Your task to perform on an android device: change notifications settings Image 0: 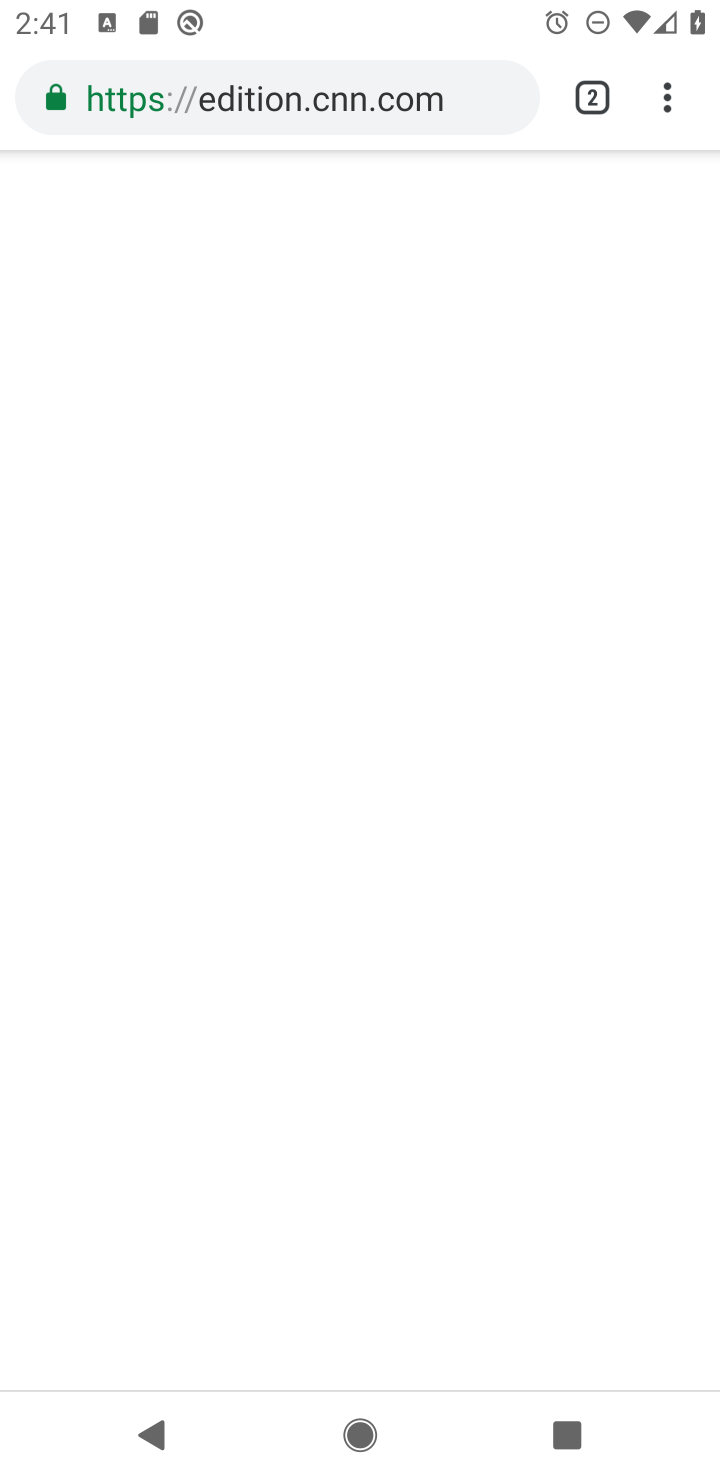
Step 0: press home button
Your task to perform on an android device: change notifications settings Image 1: 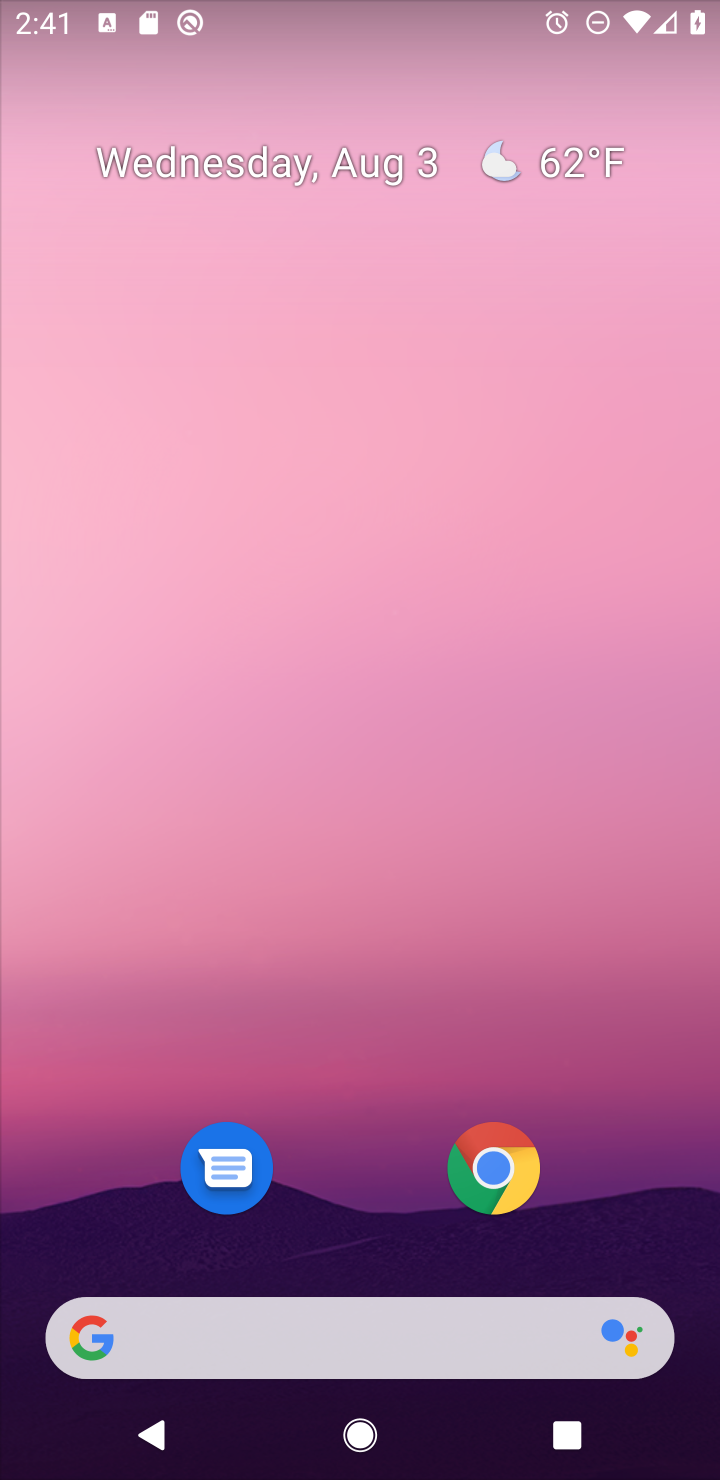
Step 1: drag from (647, 1147) to (620, 224)
Your task to perform on an android device: change notifications settings Image 2: 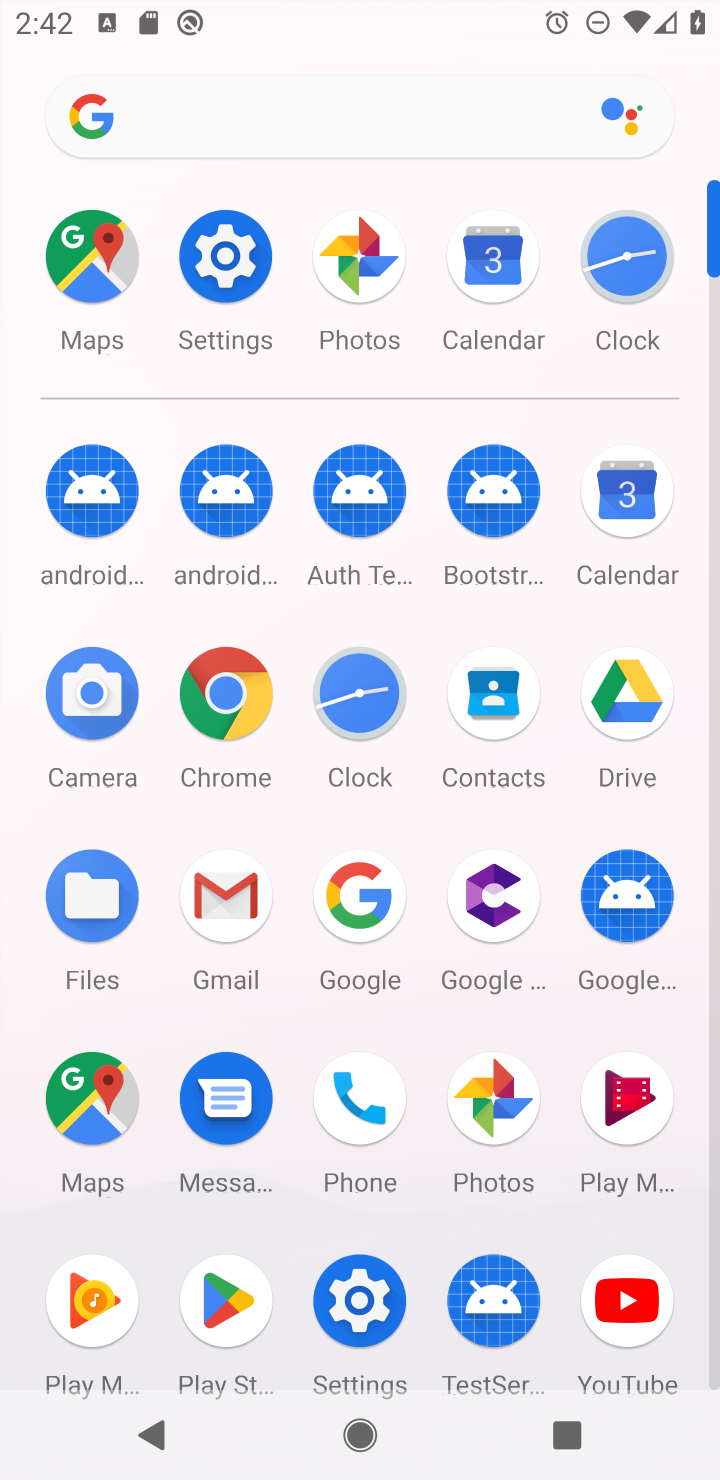
Step 2: click (360, 1301)
Your task to perform on an android device: change notifications settings Image 3: 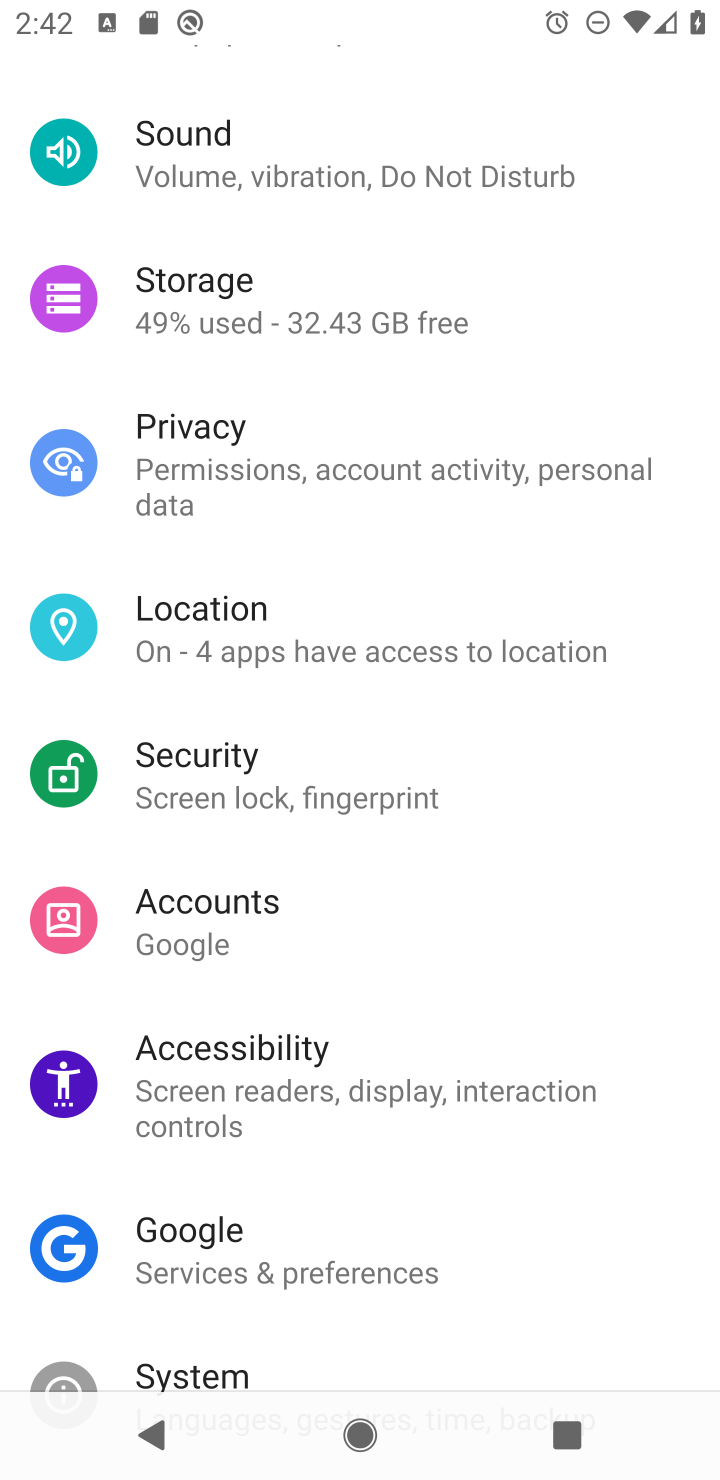
Step 3: drag from (639, 282) to (664, 1001)
Your task to perform on an android device: change notifications settings Image 4: 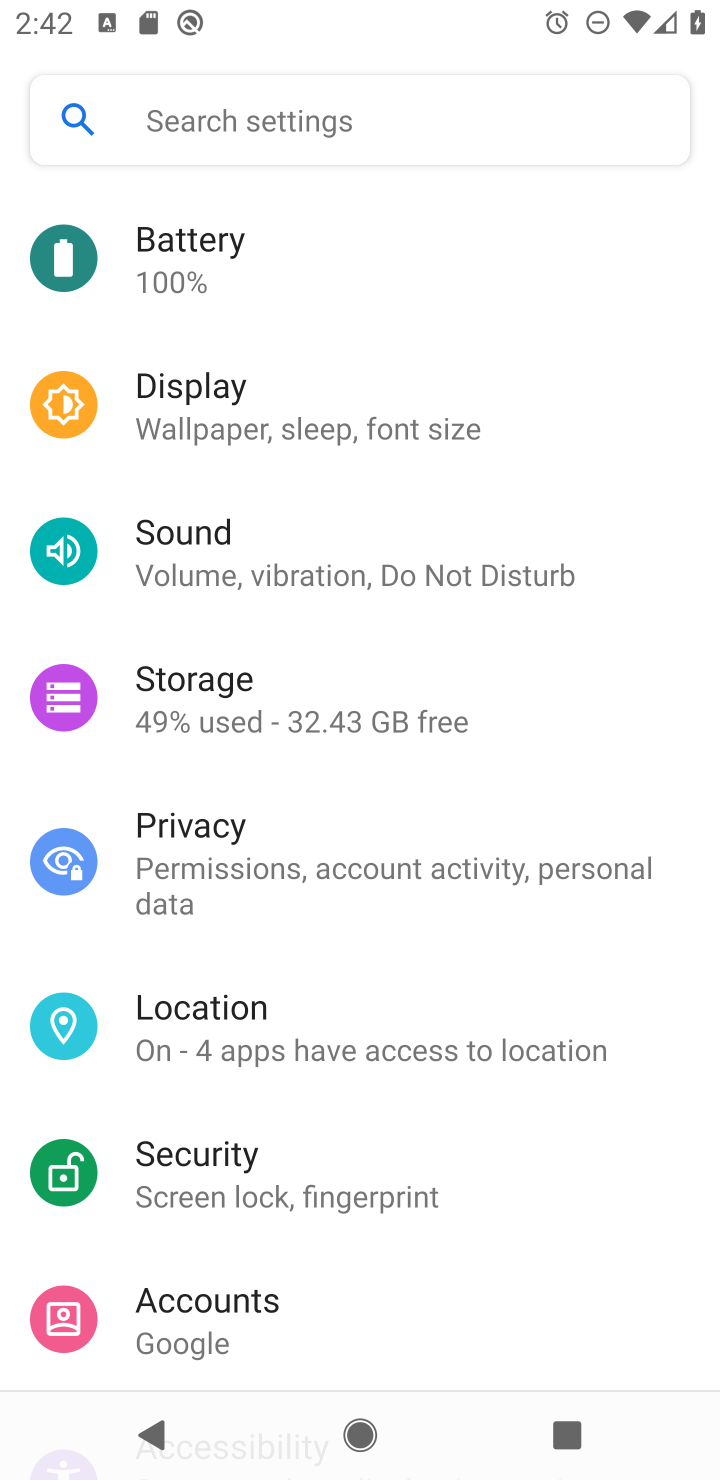
Step 4: drag from (617, 341) to (655, 933)
Your task to perform on an android device: change notifications settings Image 5: 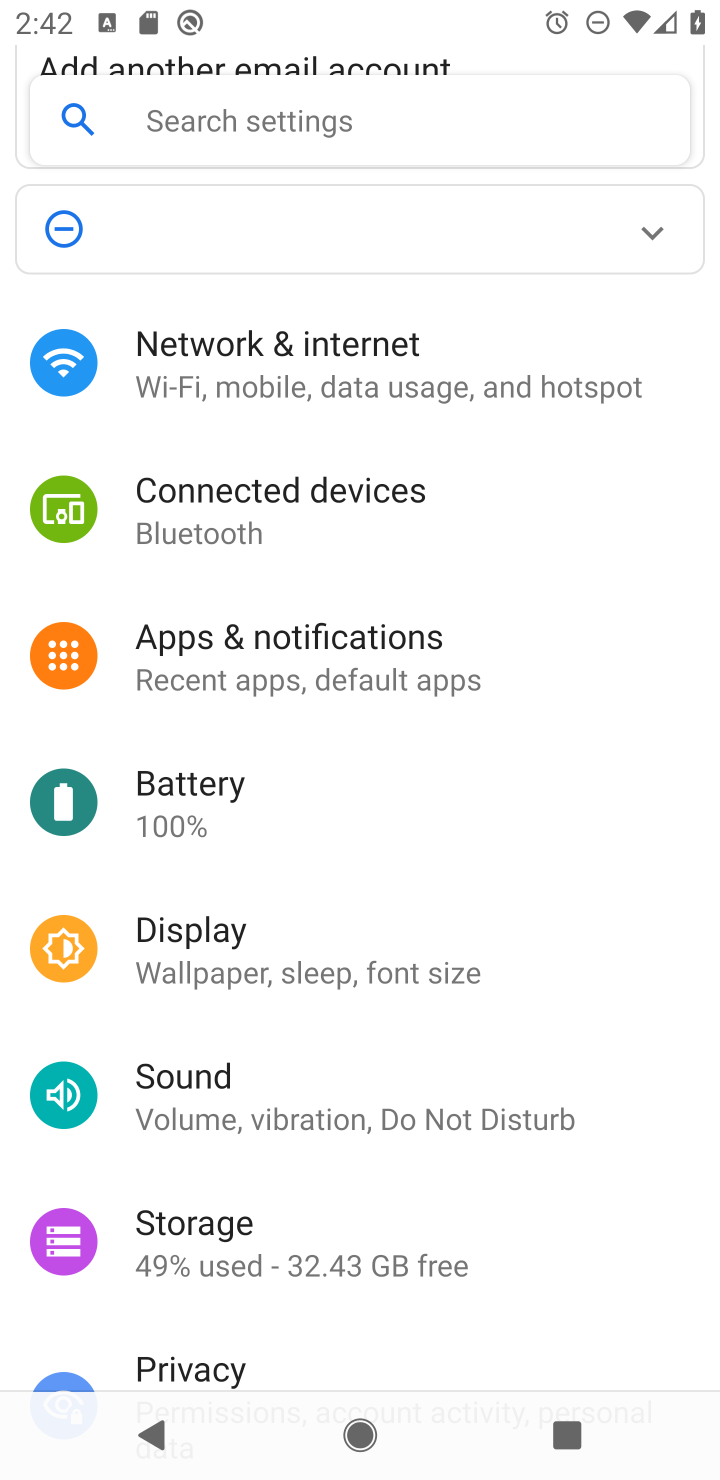
Step 5: click (294, 658)
Your task to perform on an android device: change notifications settings Image 6: 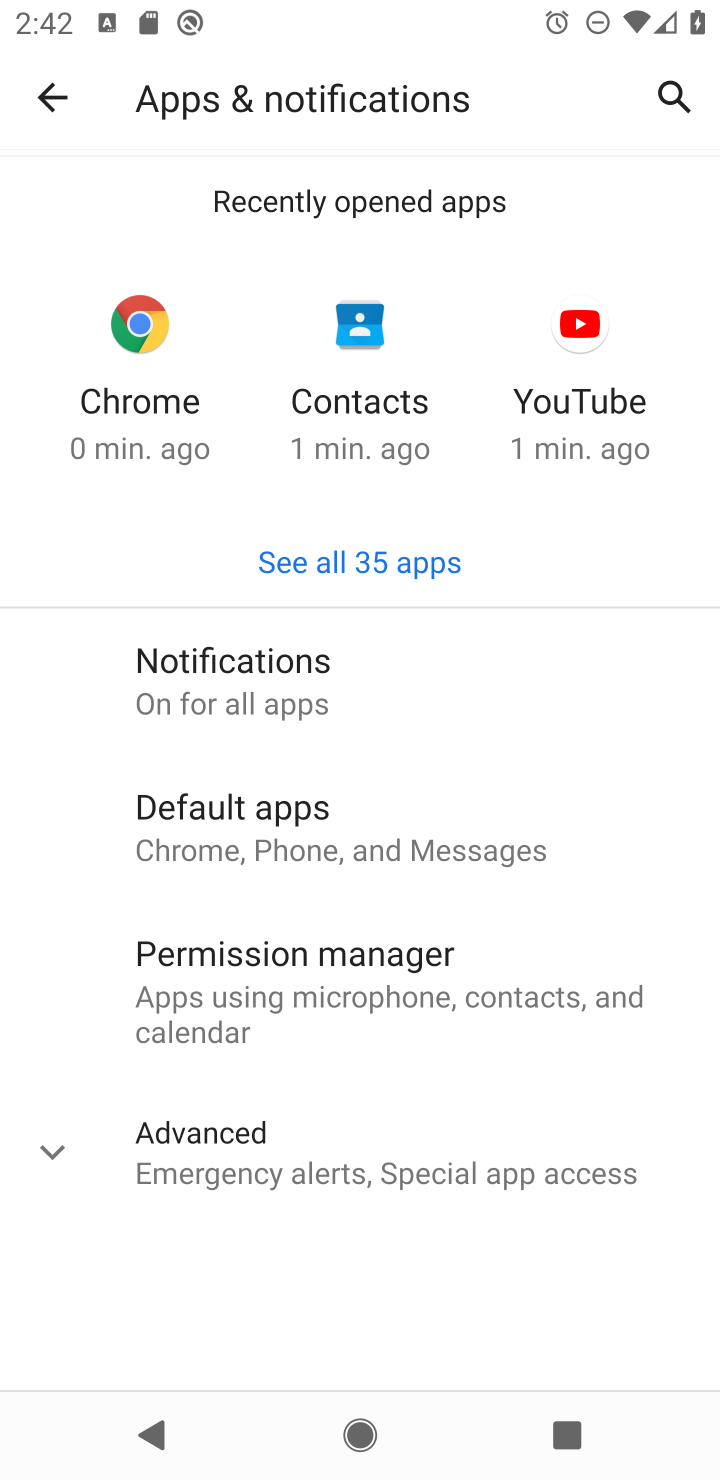
Step 6: click (248, 675)
Your task to perform on an android device: change notifications settings Image 7: 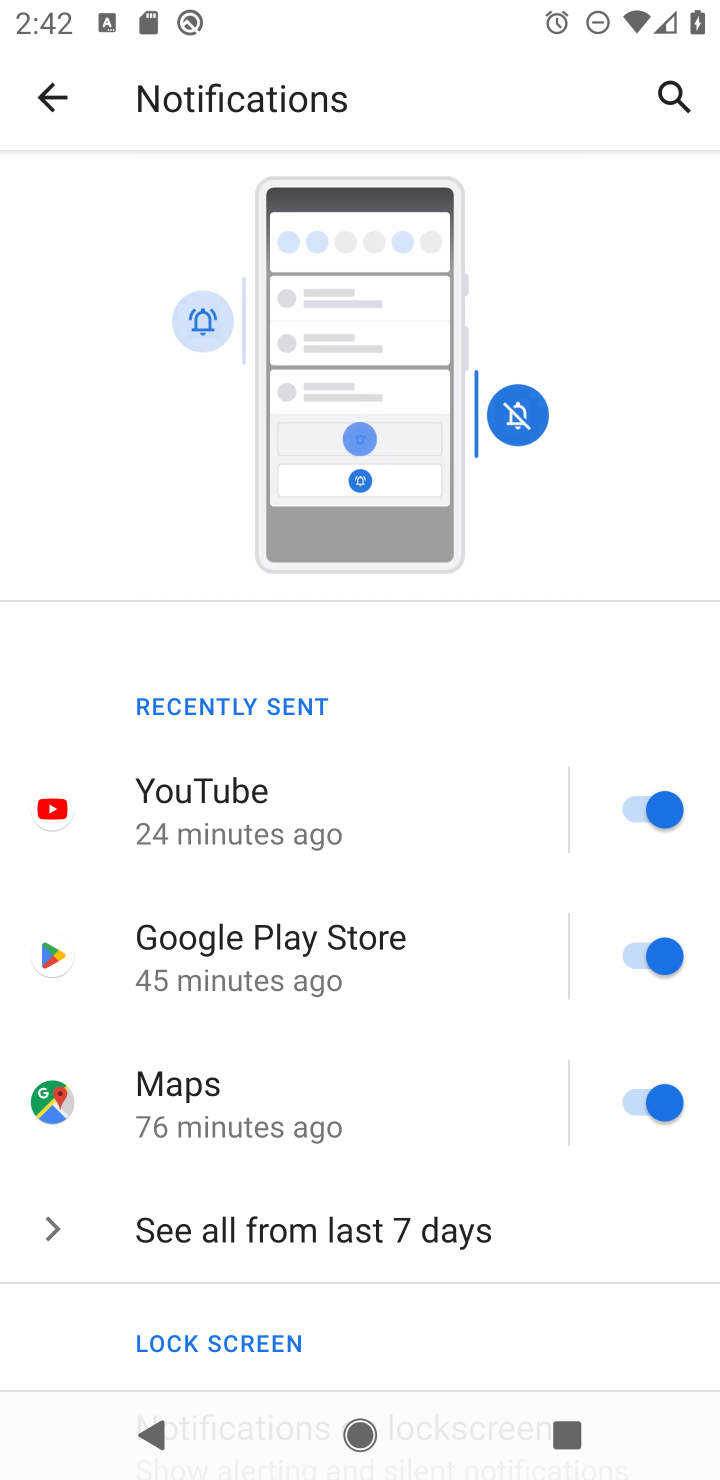
Step 7: drag from (509, 1271) to (567, 546)
Your task to perform on an android device: change notifications settings Image 8: 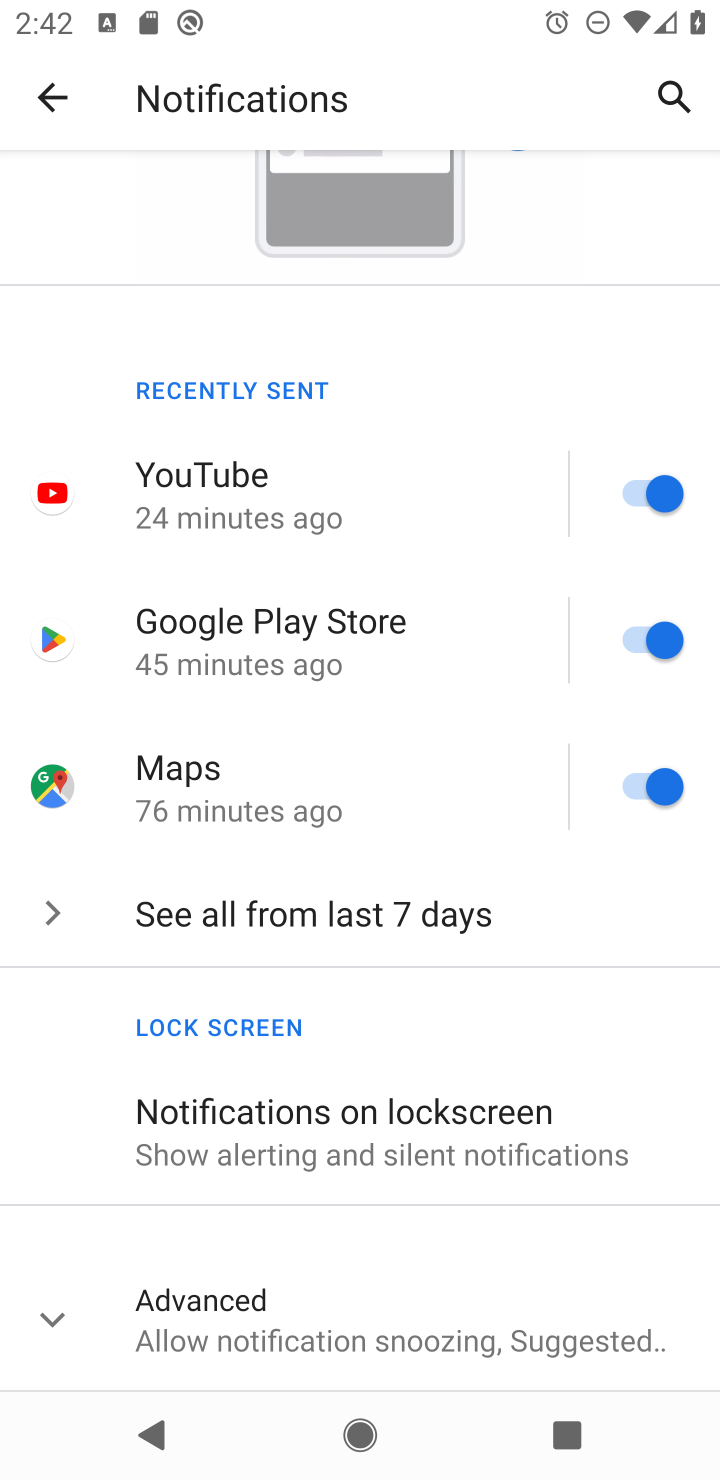
Step 8: click (59, 1308)
Your task to perform on an android device: change notifications settings Image 9: 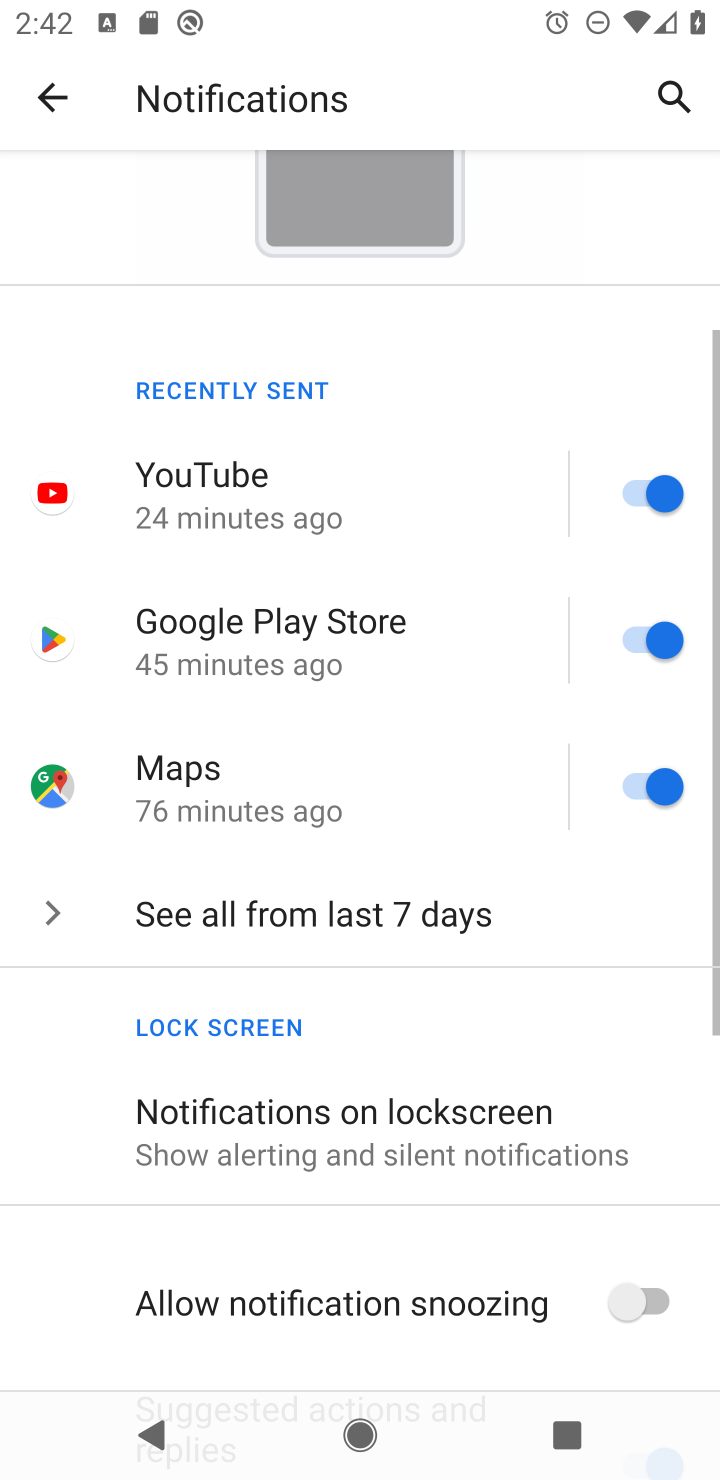
Step 9: drag from (552, 1235) to (555, 428)
Your task to perform on an android device: change notifications settings Image 10: 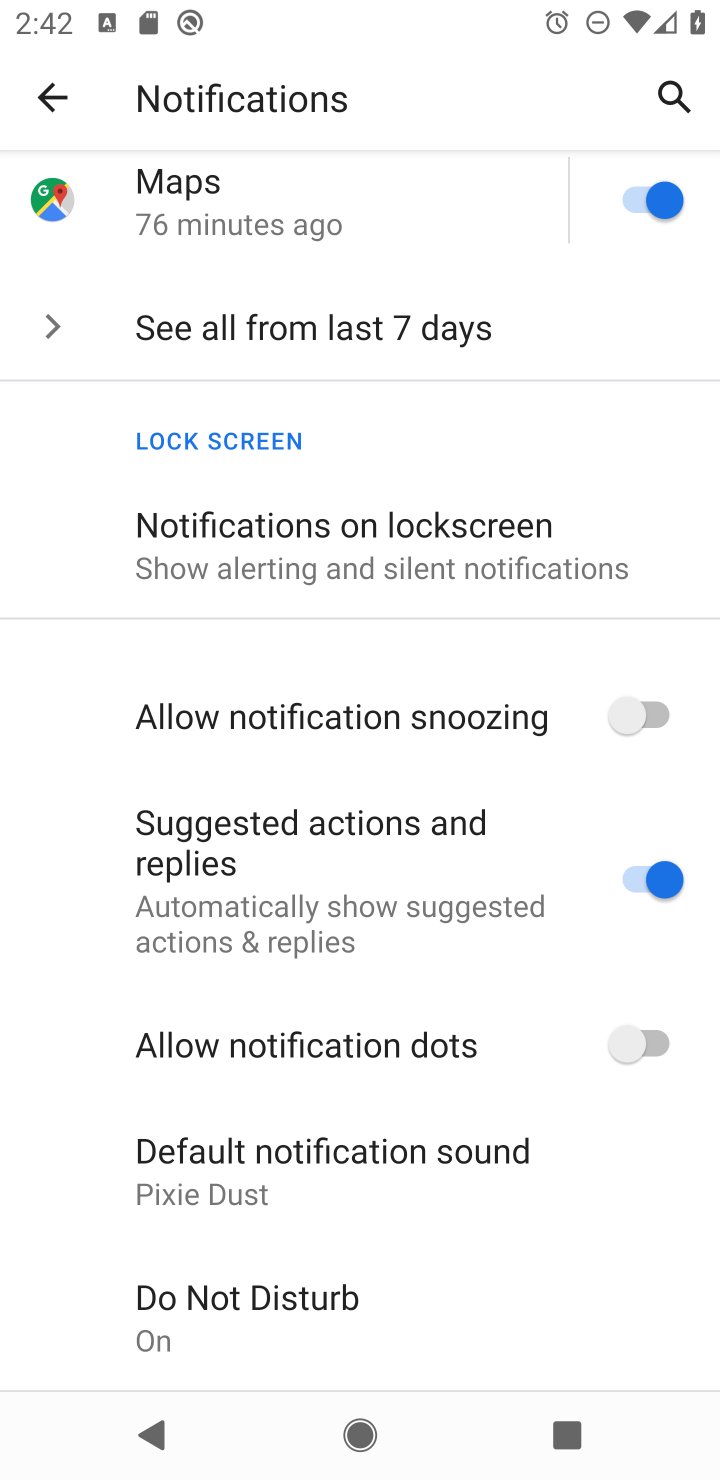
Step 10: click (656, 1041)
Your task to perform on an android device: change notifications settings Image 11: 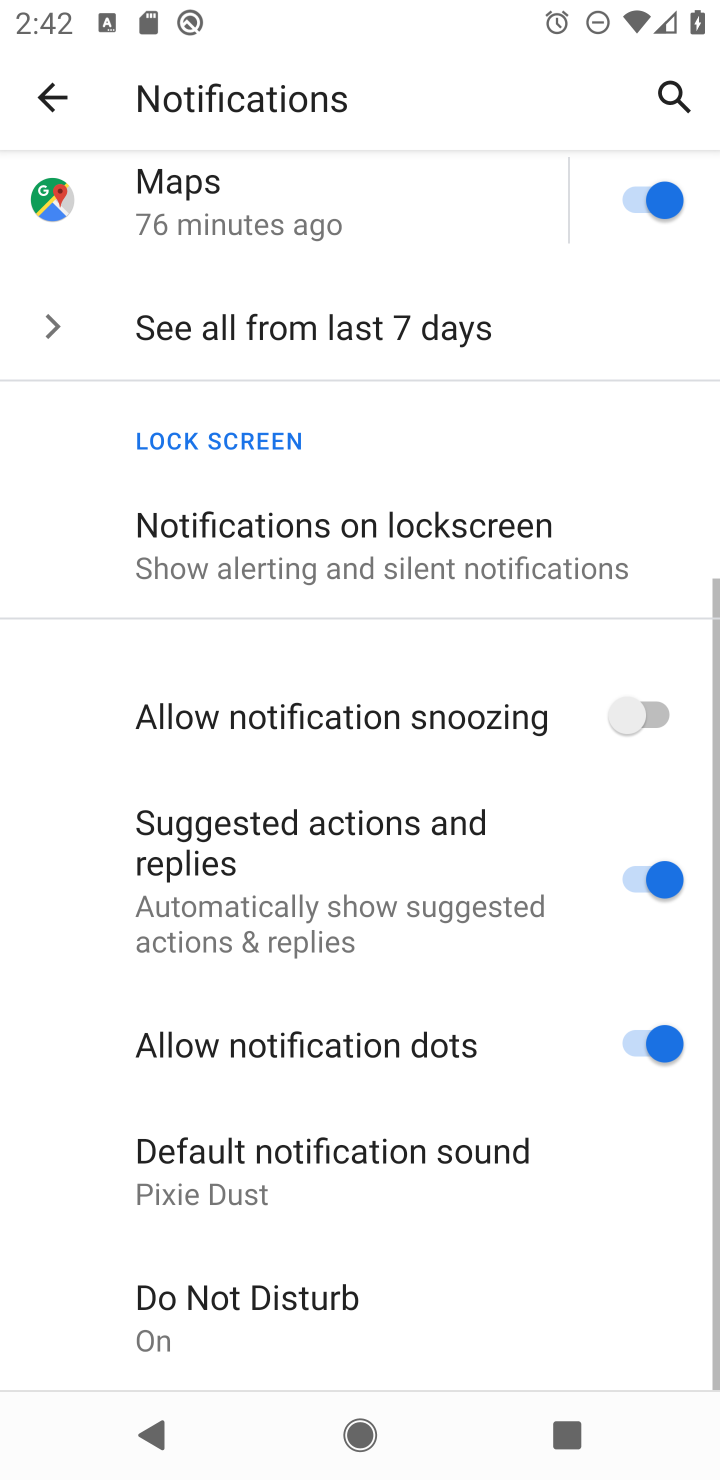
Step 11: click (648, 712)
Your task to perform on an android device: change notifications settings Image 12: 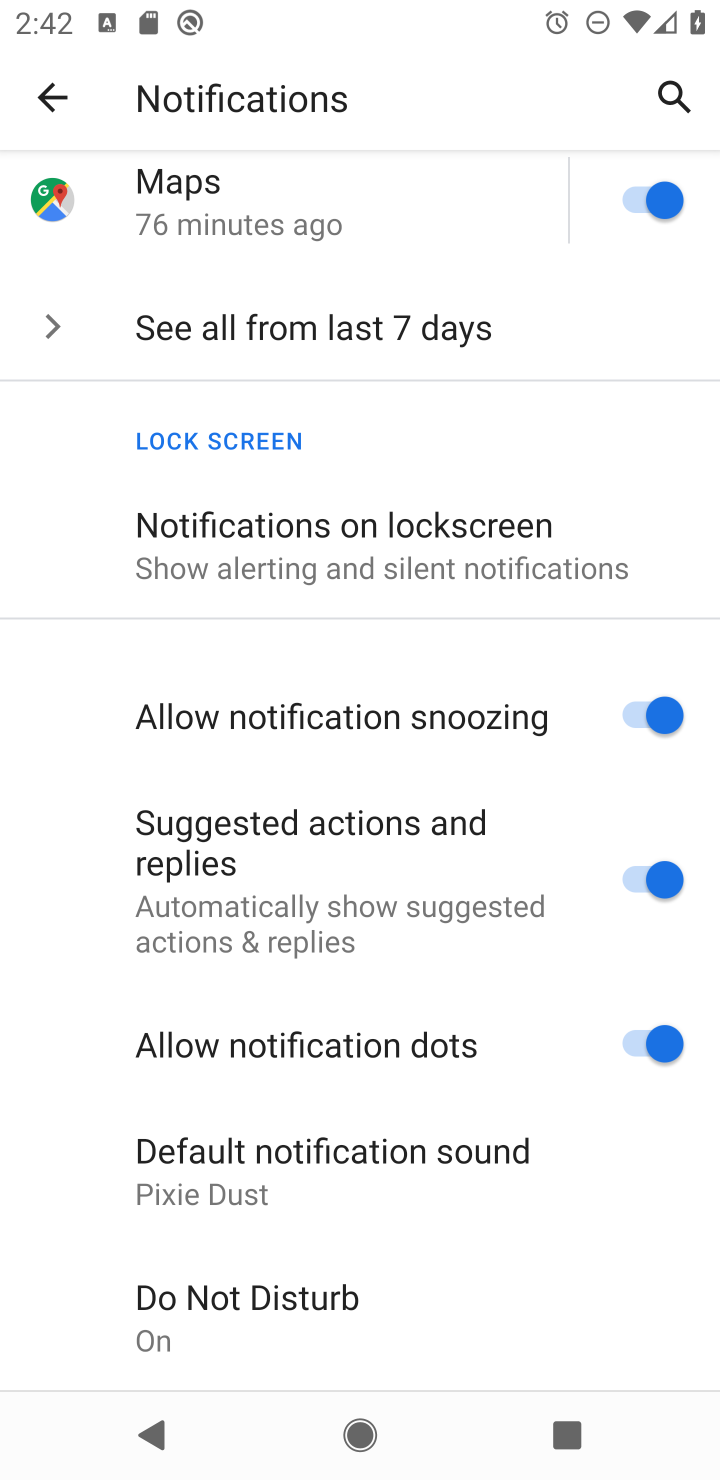
Step 12: task complete